Your task to perform on an android device: Open settings on Google Maps Image 0: 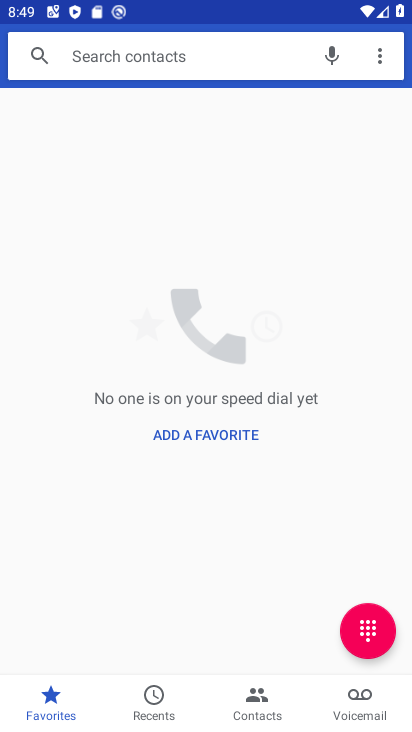
Step 0: press home button
Your task to perform on an android device: Open settings on Google Maps Image 1: 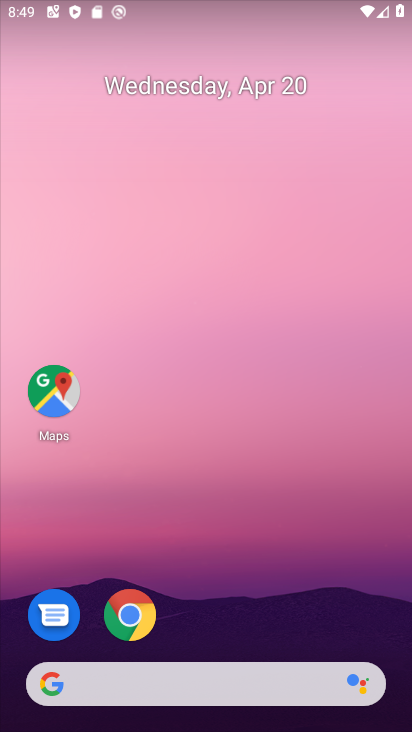
Step 1: drag from (208, 647) to (192, 63)
Your task to perform on an android device: Open settings on Google Maps Image 2: 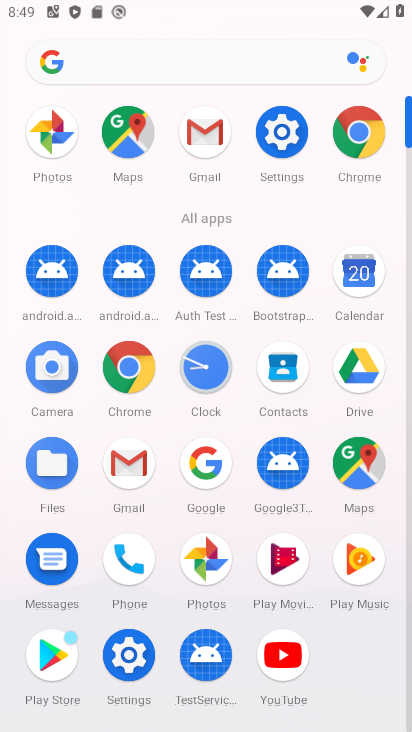
Step 2: click (367, 467)
Your task to perform on an android device: Open settings on Google Maps Image 3: 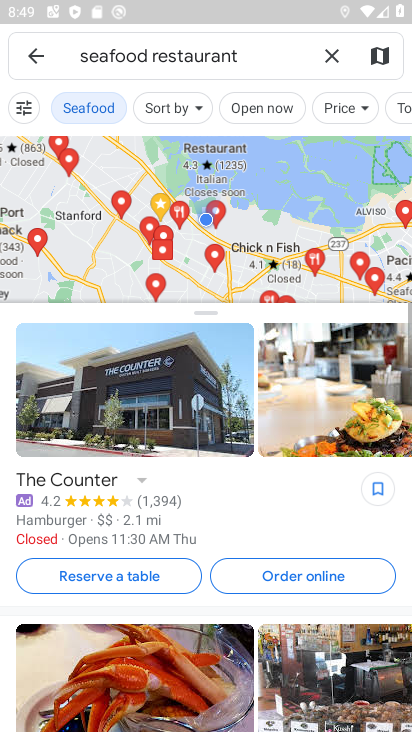
Step 3: click (41, 52)
Your task to perform on an android device: Open settings on Google Maps Image 4: 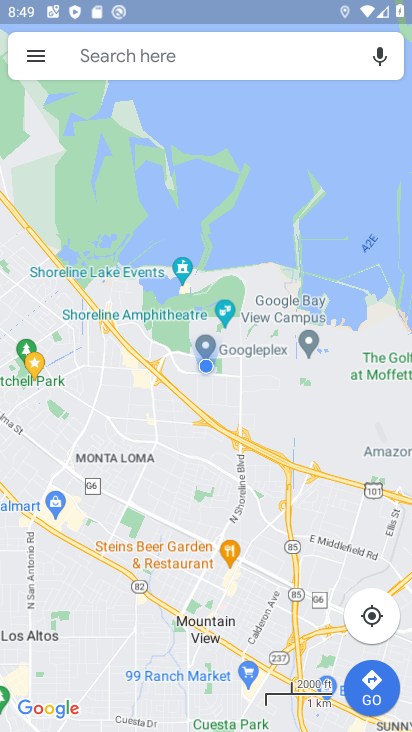
Step 4: click (41, 52)
Your task to perform on an android device: Open settings on Google Maps Image 5: 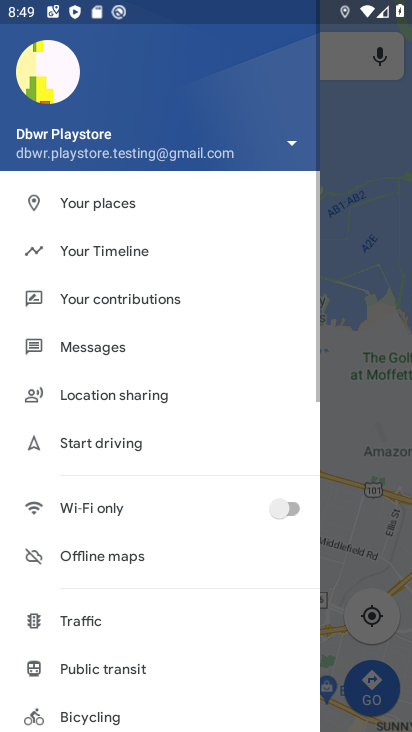
Step 5: drag from (75, 580) to (75, 185)
Your task to perform on an android device: Open settings on Google Maps Image 6: 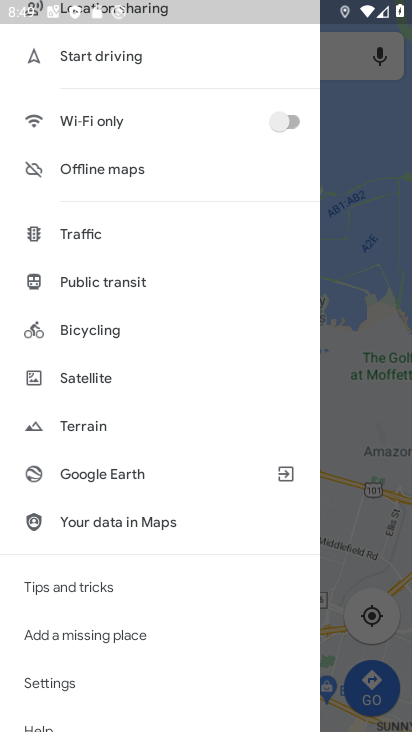
Step 6: click (83, 684)
Your task to perform on an android device: Open settings on Google Maps Image 7: 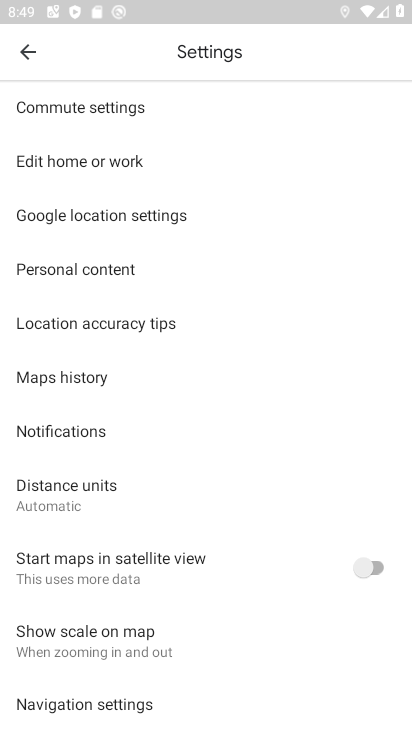
Step 7: task complete